Your task to perform on an android device: turn off wifi Image 0: 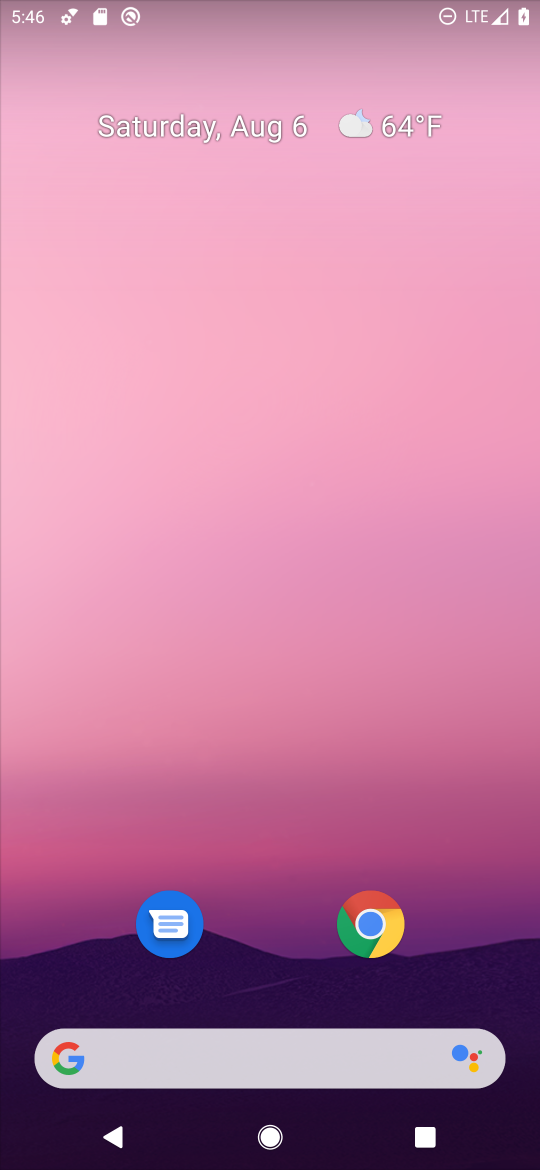
Step 0: drag from (294, 865) to (260, 96)
Your task to perform on an android device: turn off wifi Image 1: 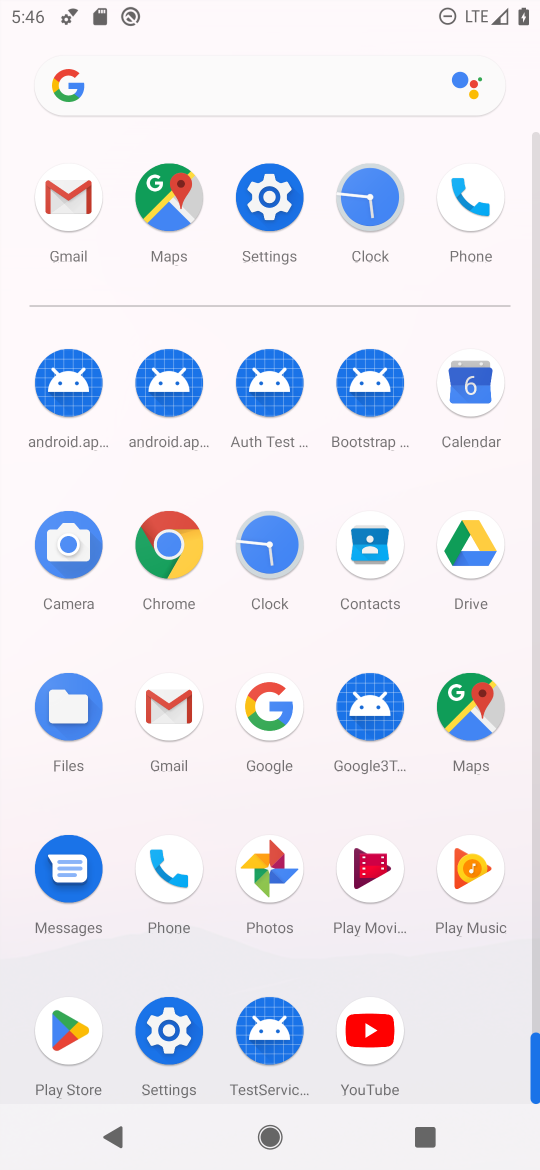
Step 1: click (264, 194)
Your task to perform on an android device: turn off wifi Image 2: 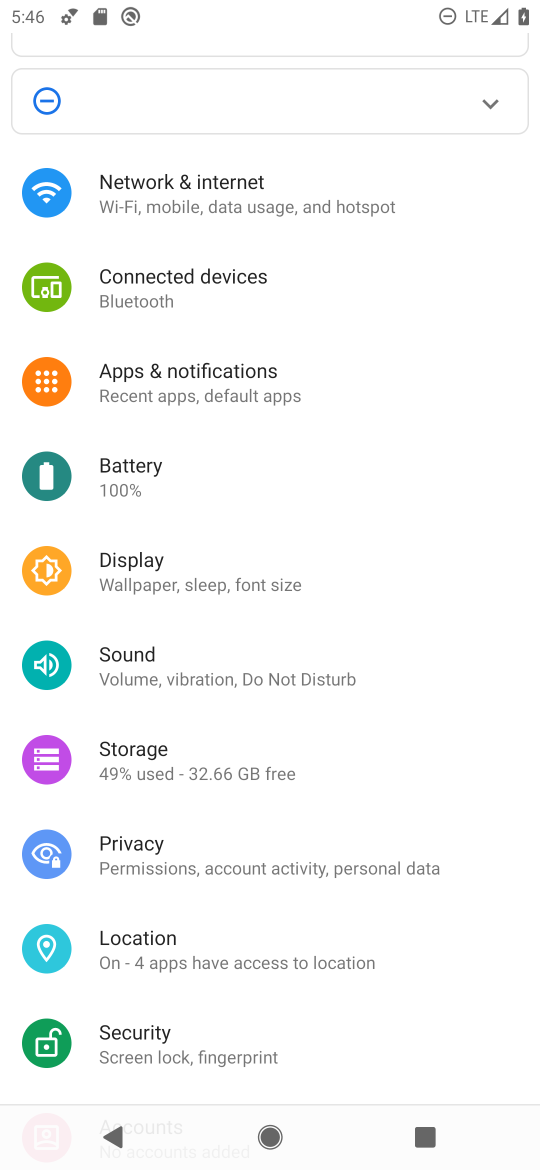
Step 2: click (215, 175)
Your task to perform on an android device: turn off wifi Image 3: 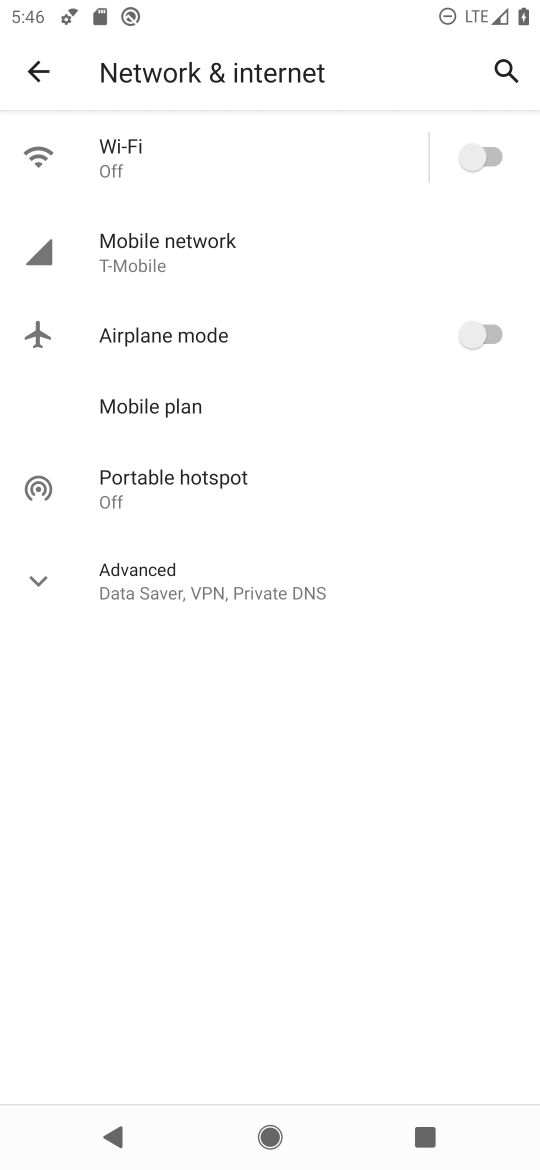
Step 3: task complete